Your task to perform on an android device: Open Reddit.com Image 0: 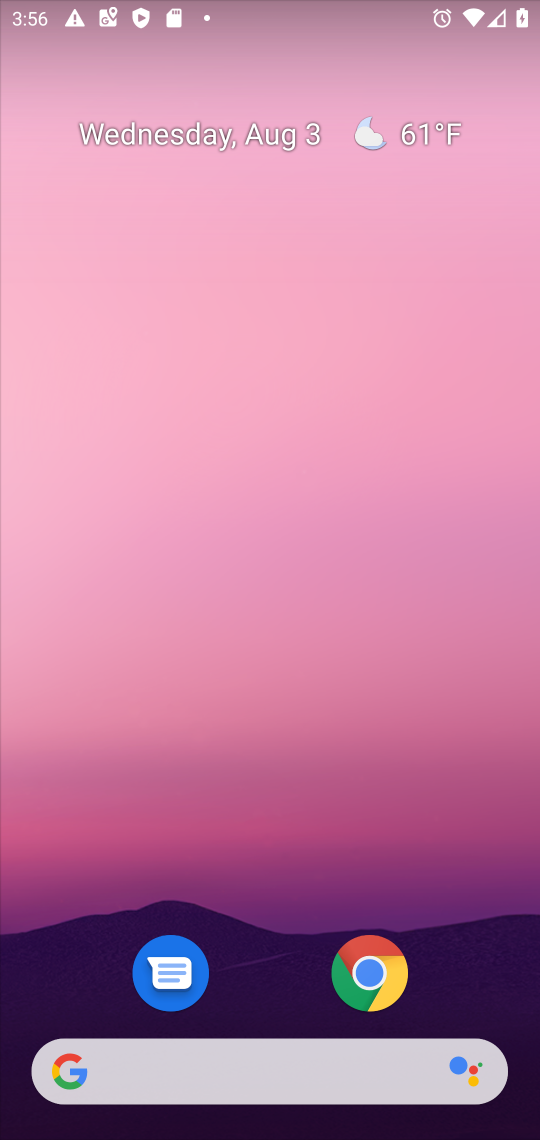
Step 0: click (316, 1075)
Your task to perform on an android device: Open Reddit.com Image 1: 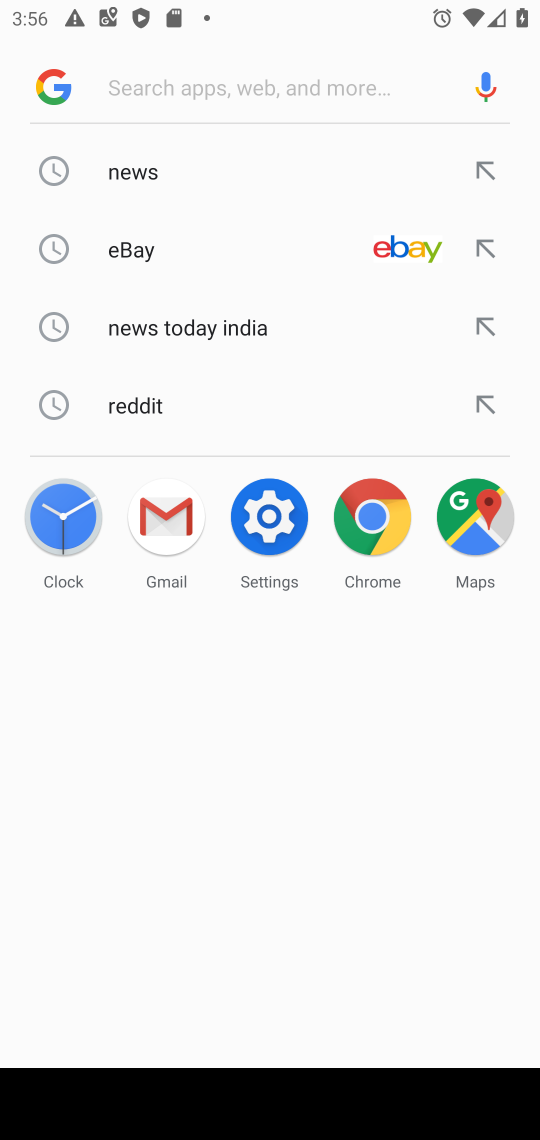
Step 1: type "reddit.com"
Your task to perform on an android device: Open Reddit.com Image 2: 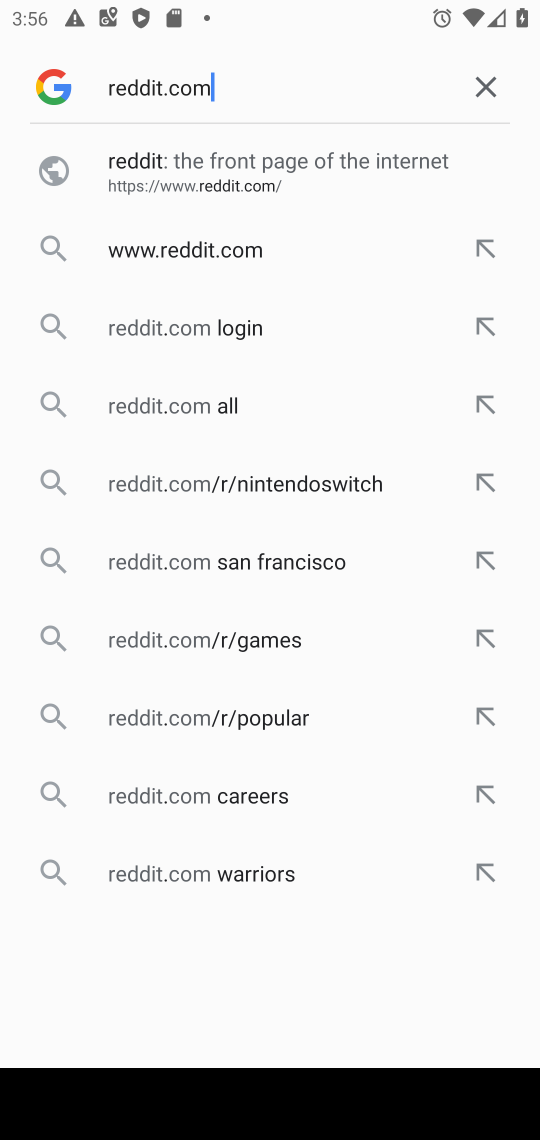
Step 2: click (263, 159)
Your task to perform on an android device: Open Reddit.com Image 3: 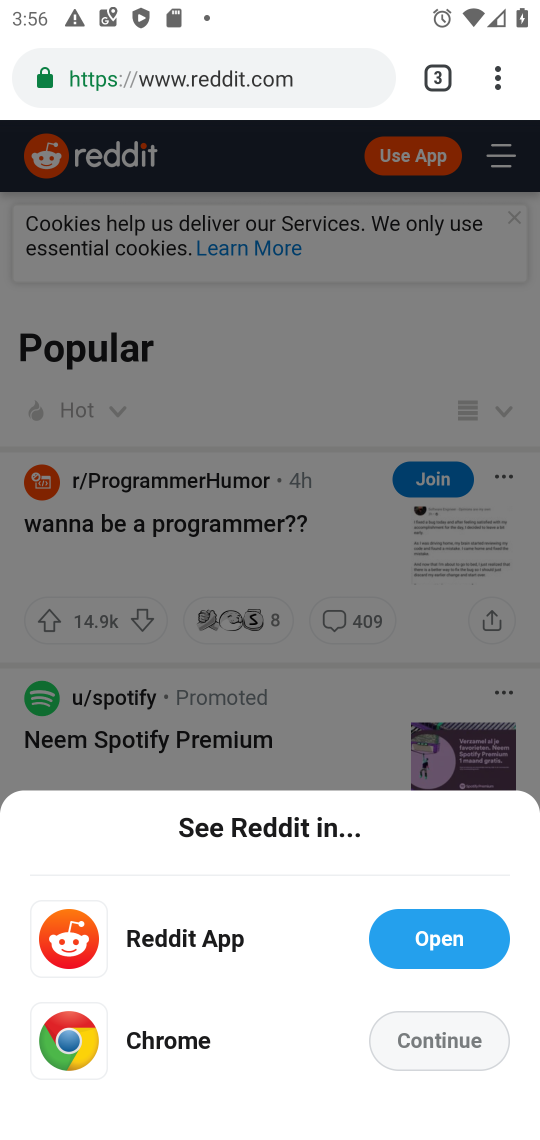
Step 3: click (453, 1042)
Your task to perform on an android device: Open Reddit.com Image 4: 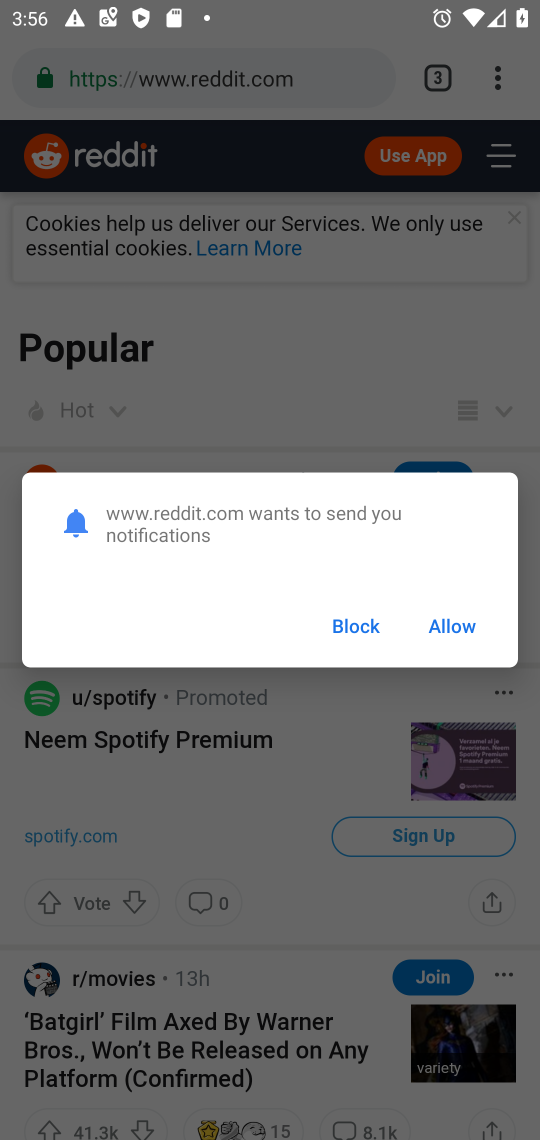
Step 4: click (345, 620)
Your task to perform on an android device: Open Reddit.com Image 5: 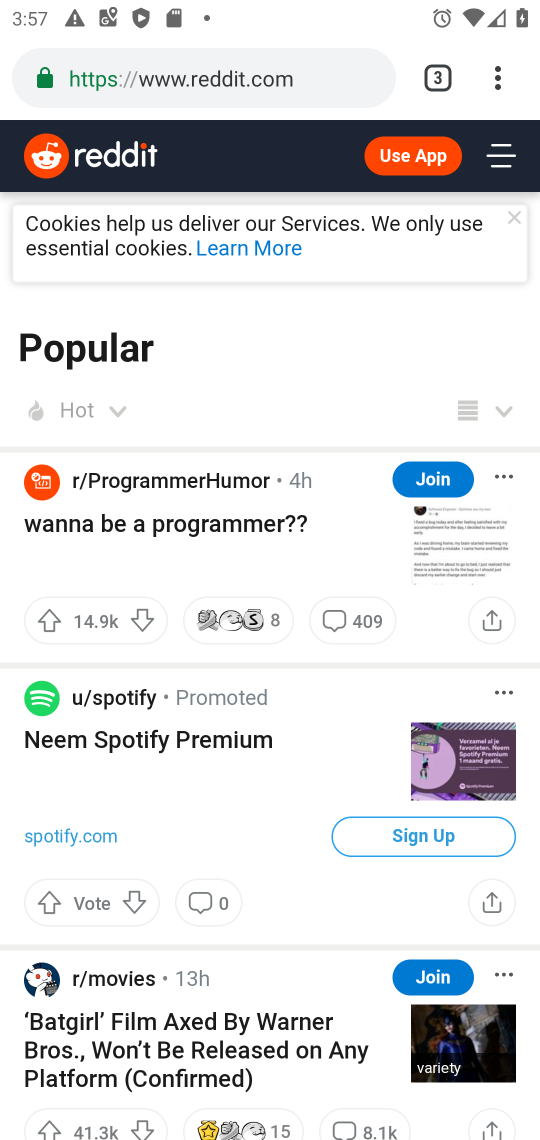
Step 5: task complete